Your task to perform on an android device: move a message to another label in the gmail app Image 0: 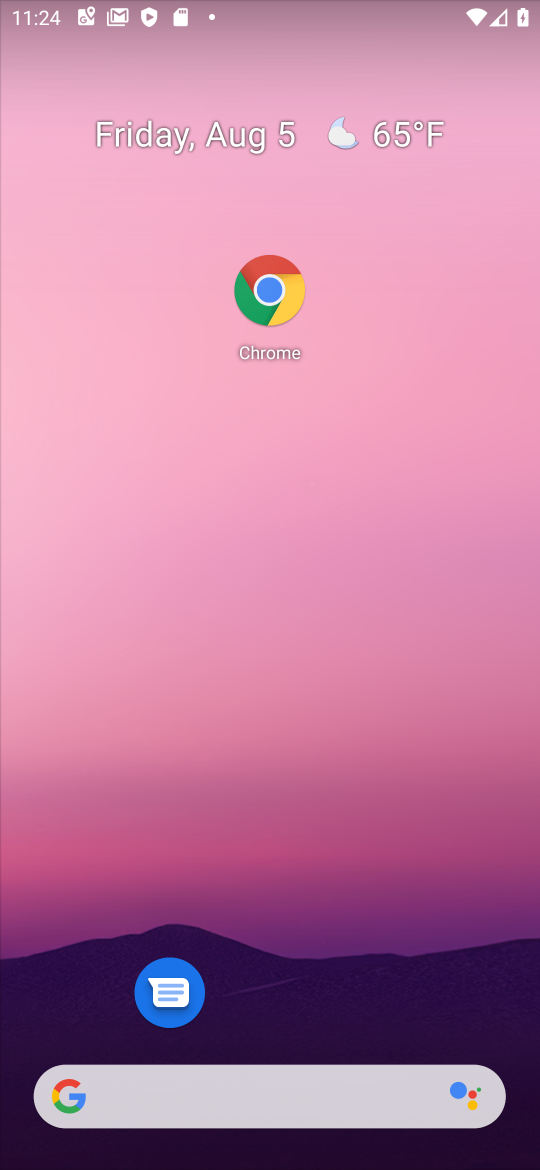
Step 0: drag from (402, 970) to (232, 16)
Your task to perform on an android device: move a message to another label in the gmail app Image 1: 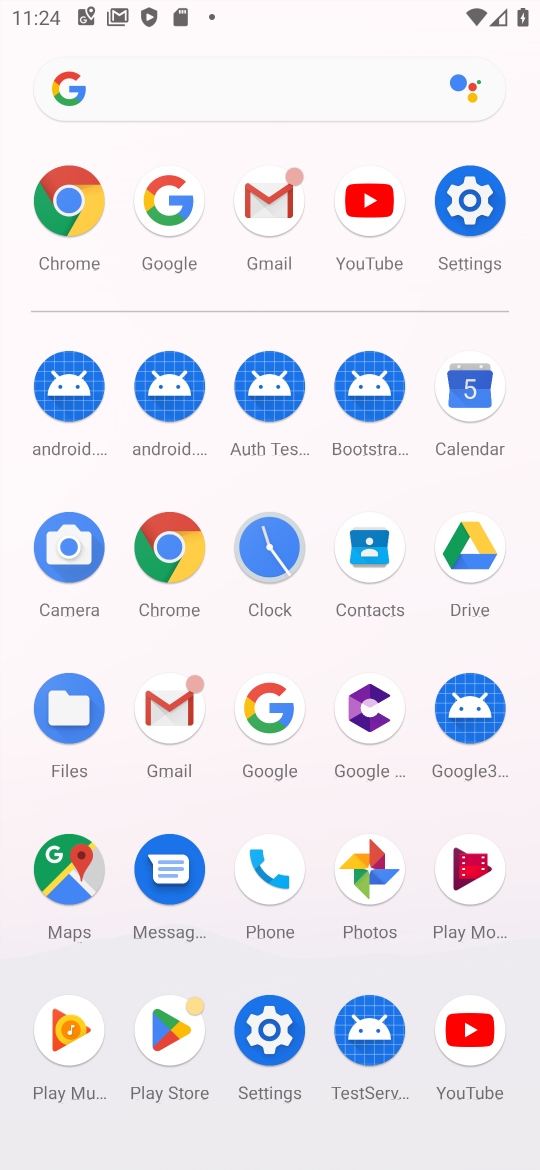
Step 1: click (251, 216)
Your task to perform on an android device: move a message to another label in the gmail app Image 2: 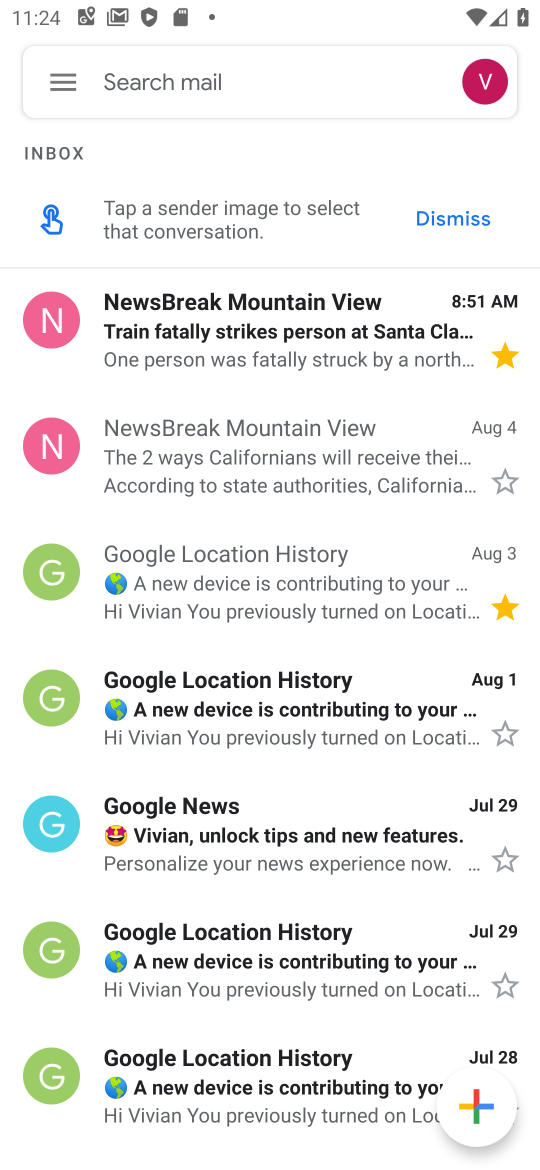
Step 2: click (201, 329)
Your task to perform on an android device: move a message to another label in the gmail app Image 3: 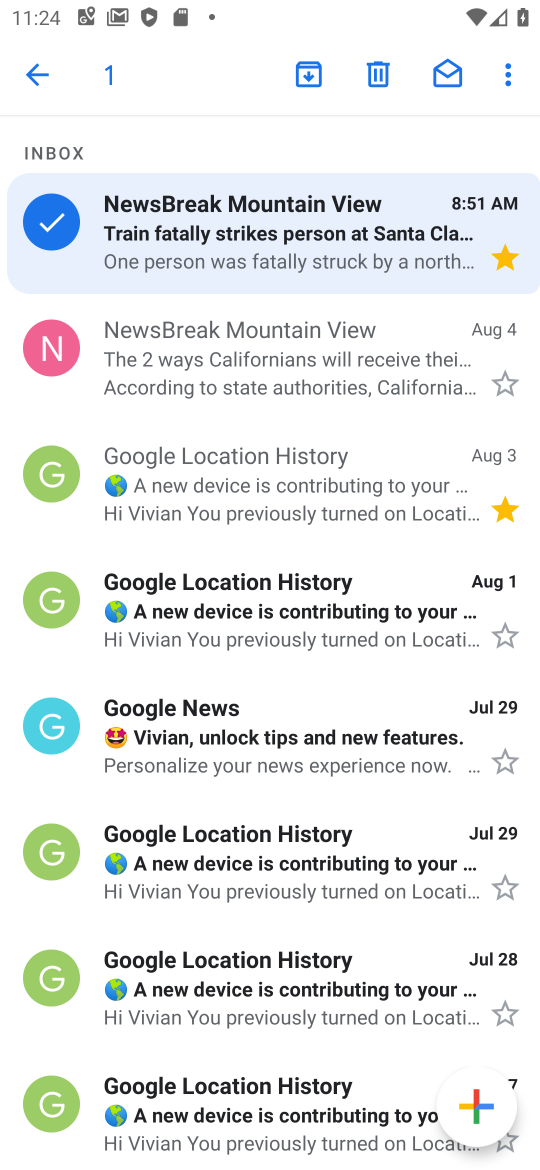
Step 3: click (55, 233)
Your task to perform on an android device: move a message to another label in the gmail app Image 4: 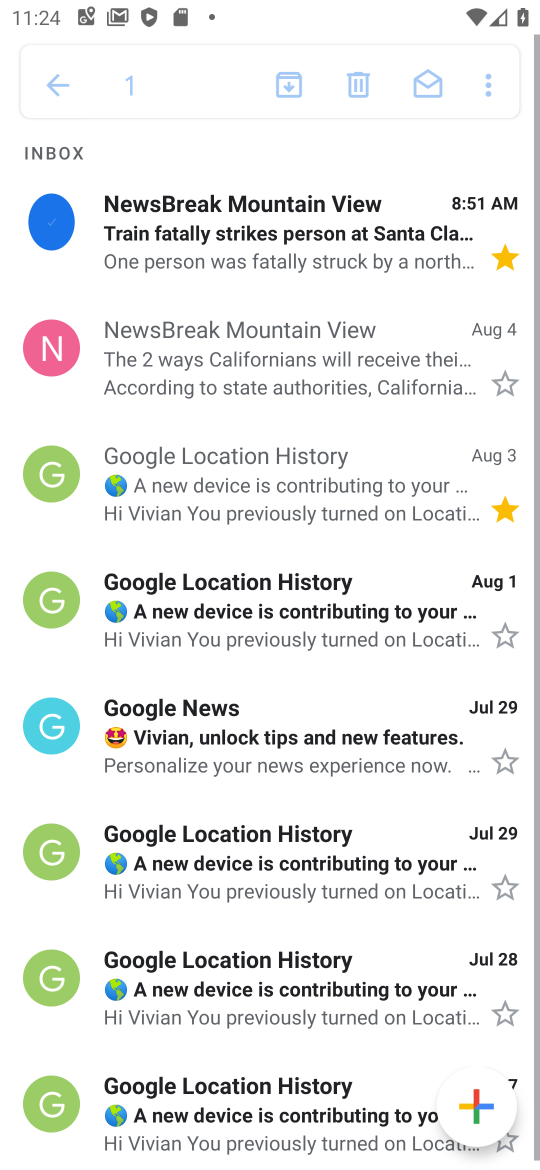
Step 4: click (212, 259)
Your task to perform on an android device: move a message to another label in the gmail app Image 5: 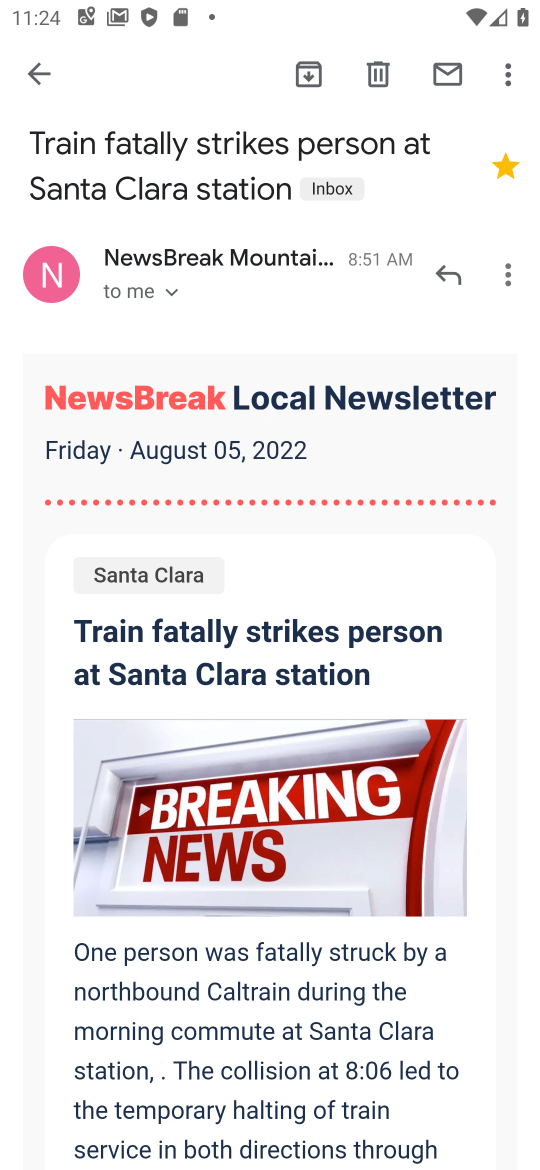
Step 5: click (501, 67)
Your task to perform on an android device: move a message to another label in the gmail app Image 6: 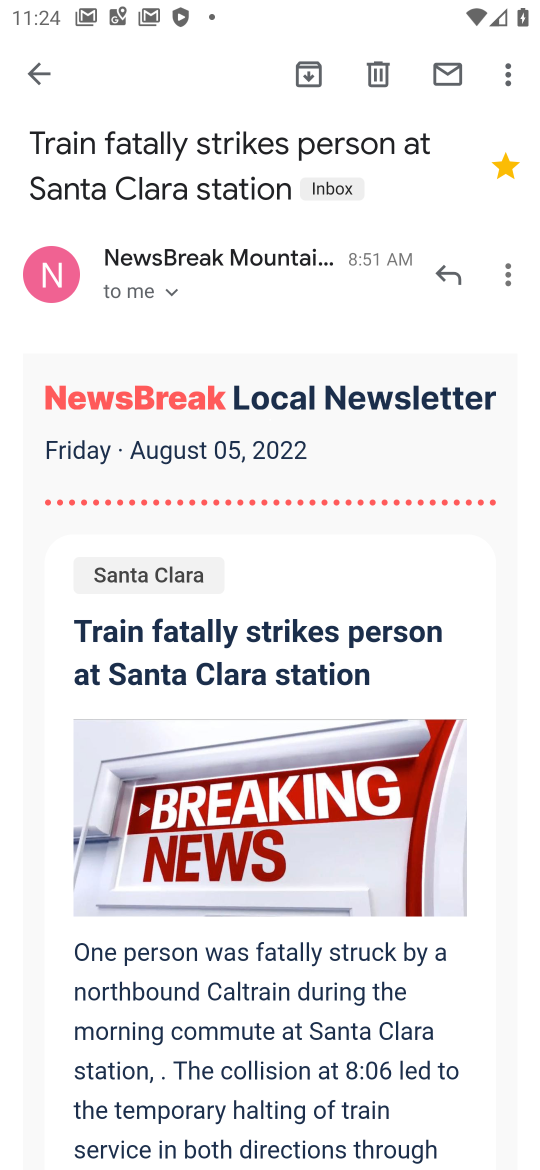
Step 6: click (494, 46)
Your task to perform on an android device: move a message to another label in the gmail app Image 7: 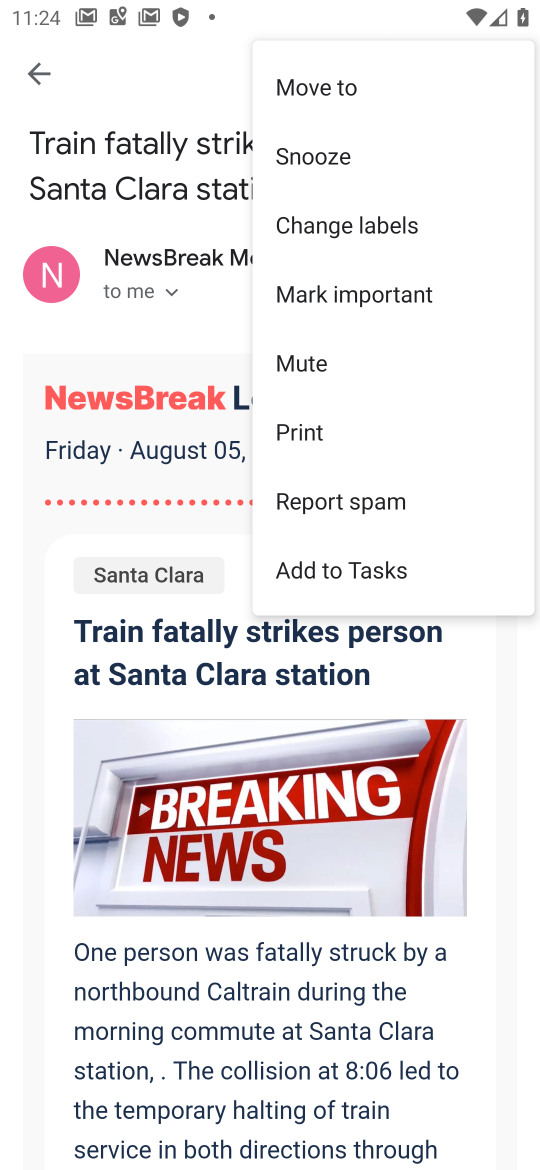
Step 7: click (308, 246)
Your task to perform on an android device: move a message to another label in the gmail app Image 8: 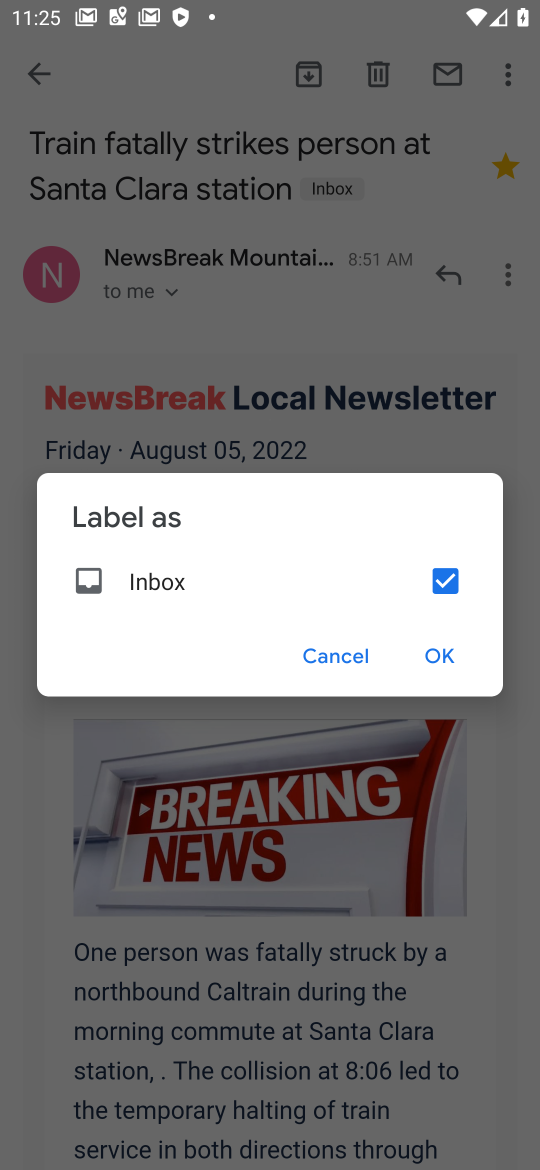
Step 8: click (438, 568)
Your task to perform on an android device: move a message to another label in the gmail app Image 9: 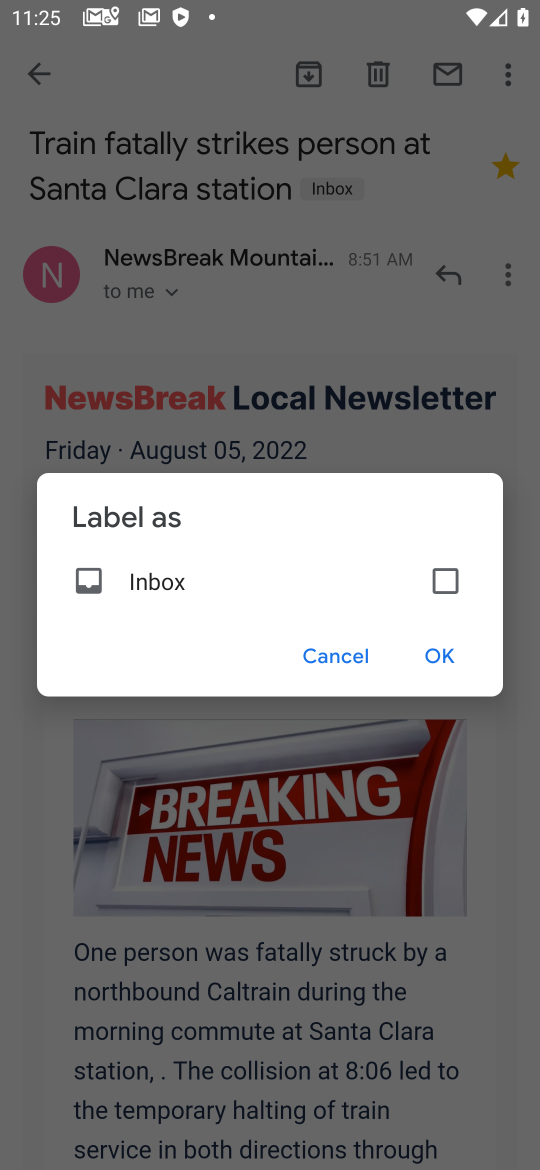
Step 9: click (453, 656)
Your task to perform on an android device: move a message to another label in the gmail app Image 10: 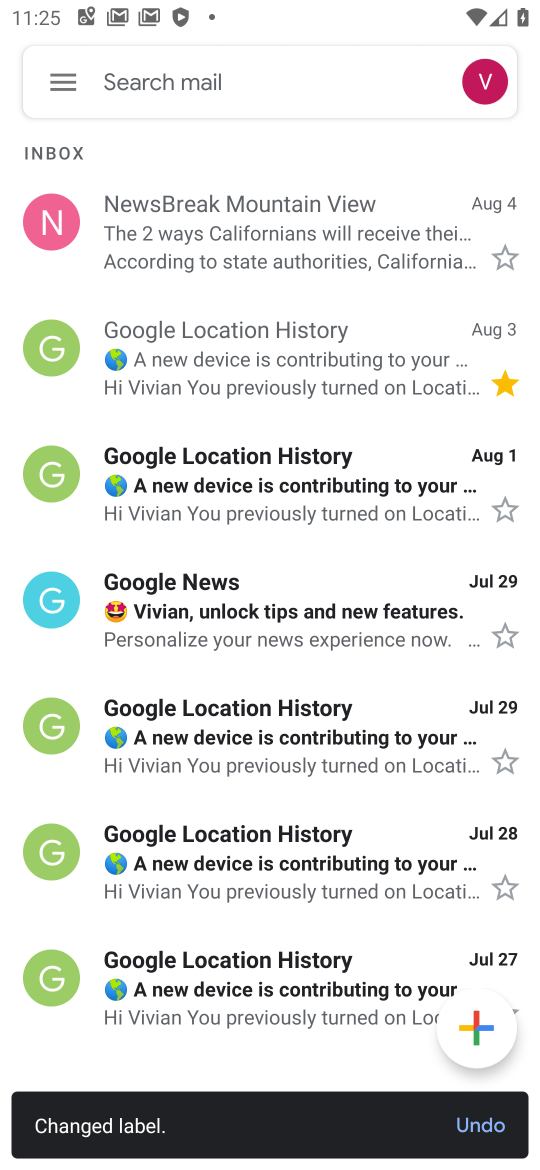
Step 10: task complete